Your task to perform on an android device: Open Google Chrome and open the bookmarks view Image 0: 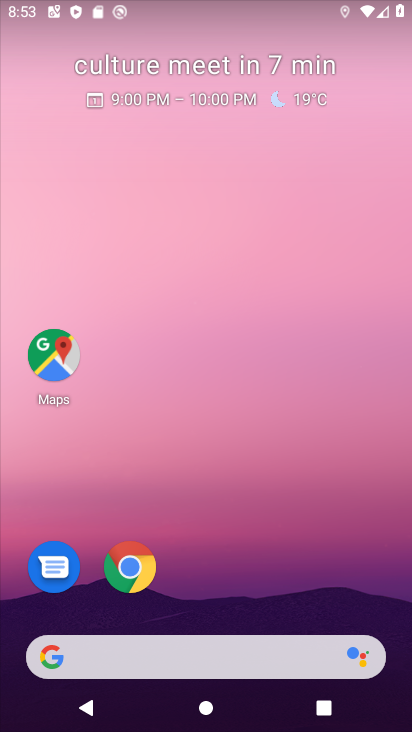
Step 0: click (144, 559)
Your task to perform on an android device: Open Google Chrome and open the bookmarks view Image 1: 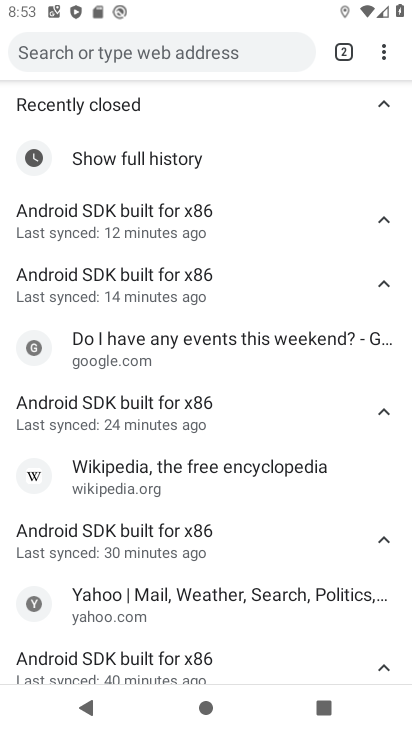
Step 1: click (398, 60)
Your task to perform on an android device: Open Google Chrome and open the bookmarks view Image 2: 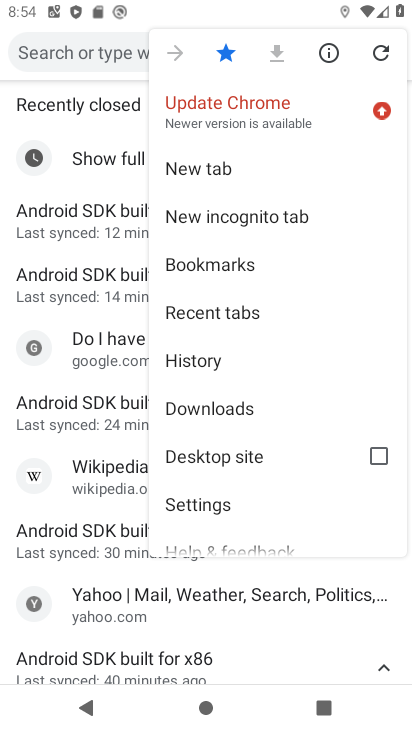
Step 2: click (203, 262)
Your task to perform on an android device: Open Google Chrome and open the bookmarks view Image 3: 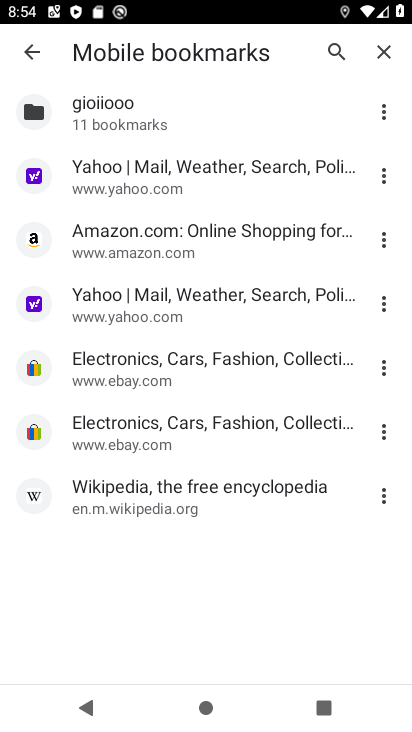
Step 3: task complete